Your task to perform on an android device: turn smart compose on in the gmail app Image 0: 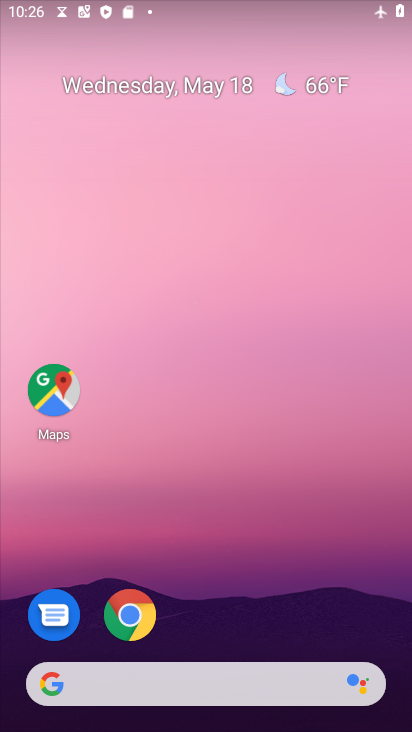
Step 0: drag from (197, 456) to (117, 4)
Your task to perform on an android device: turn smart compose on in the gmail app Image 1: 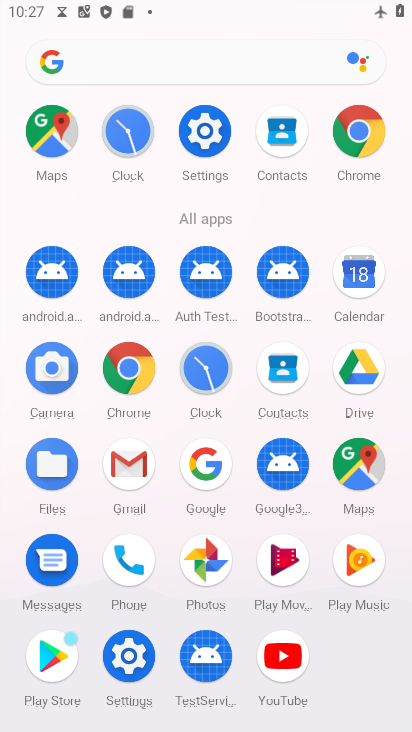
Step 1: drag from (20, 510) to (24, 191)
Your task to perform on an android device: turn smart compose on in the gmail app Image 2: 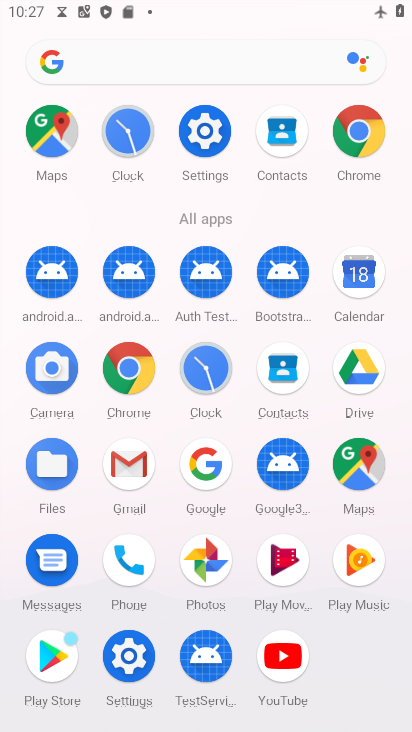
Step 2: click (129, 458)
Your task to perform on an android device: turn smart compose on in the gmail app Image 3: 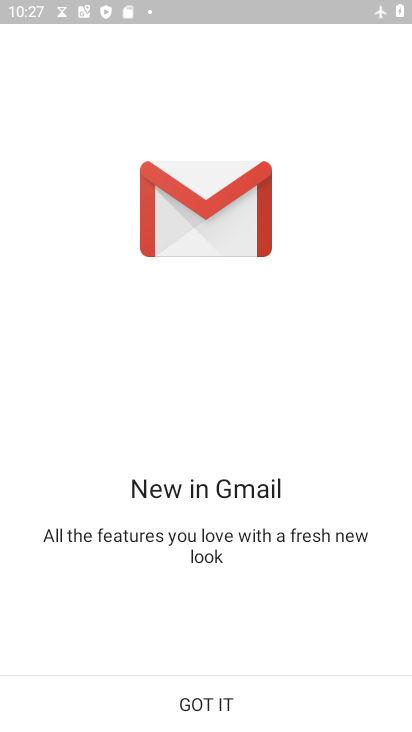
Step 3: click (214, 705)
Your task to perform on an android device: turn smart compose on in the gmail app Image 4: 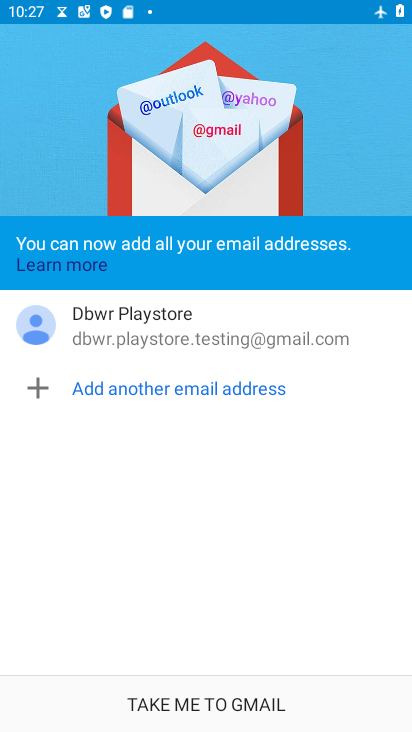
Step 4: click (214, 701)
Your task to perform on an android device: turn smart compose on in the gmail app Image 5: 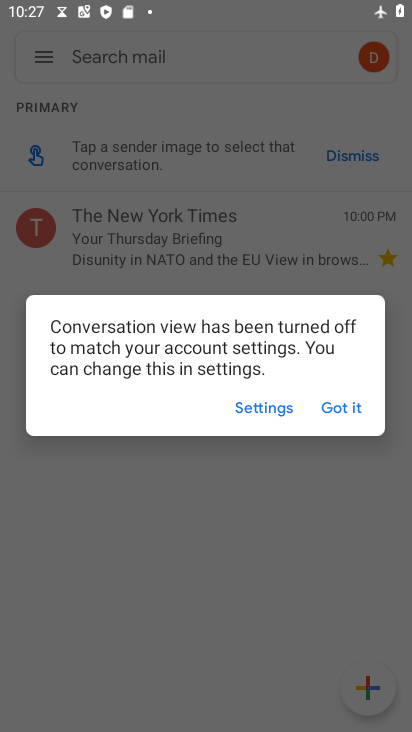
Step 5: click (347, 403)
Your task to perform on an android device: turn smart compose on in the gmail app Image 6: 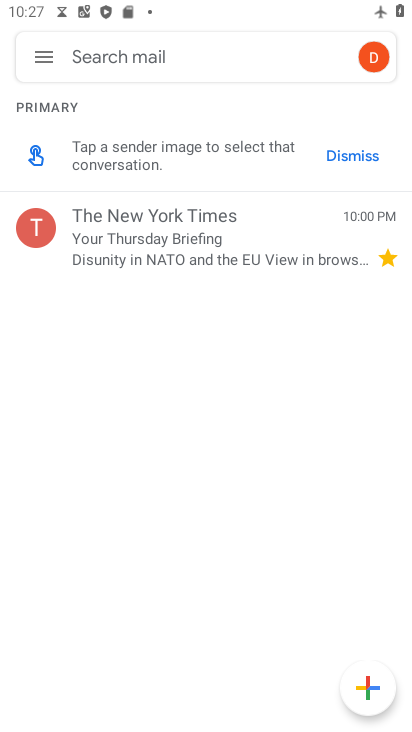
Step 6: click (48, 57)
Your task to perform on an android device: turn smart compose on in the gmail app Image 7: 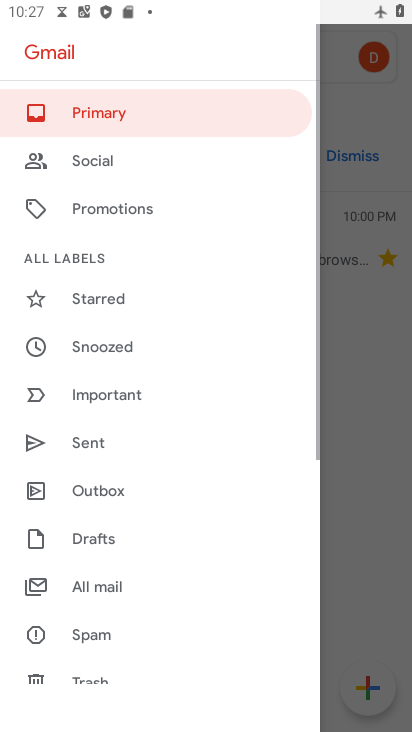
Step 7: drag from (127, 638) to (180, 161)
Your task to perform on an android device: turn smart compose on in the gmail app Image 8: 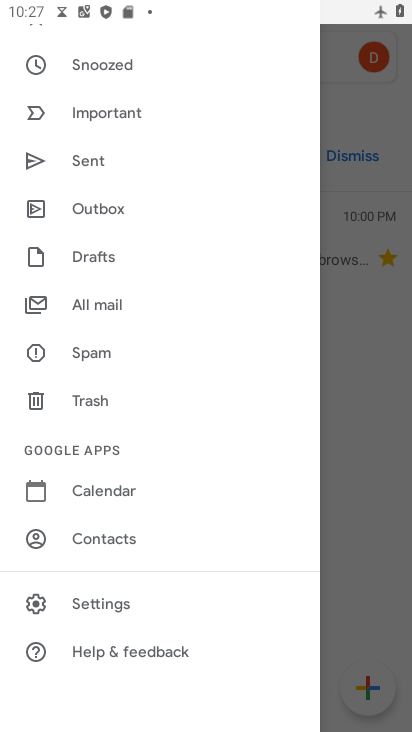
Step 8: click (103, 600)
Your task to perform on an android device: turn smart compose on in the gmail app Image 9: 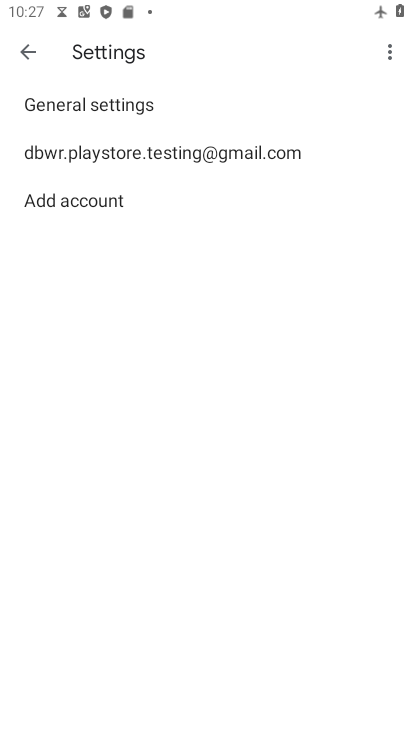
Step 9: click (175, 159)
Your task to perform on an android device: turn smart compose on in the gmail app Image 10: 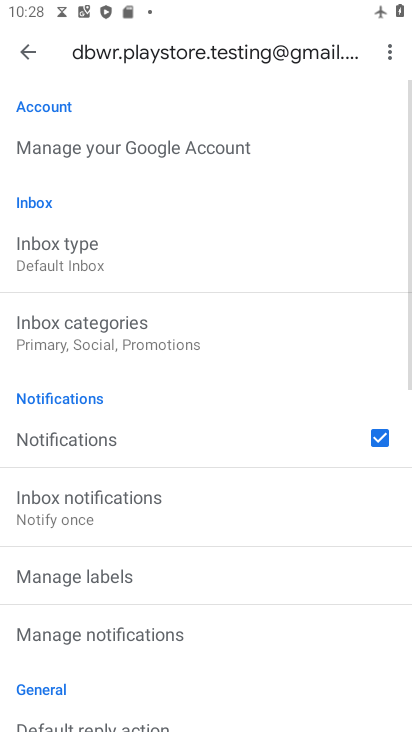
Step 10: task complete